Your task to perform on an android device: install app "Viber Messenger" Image 0: 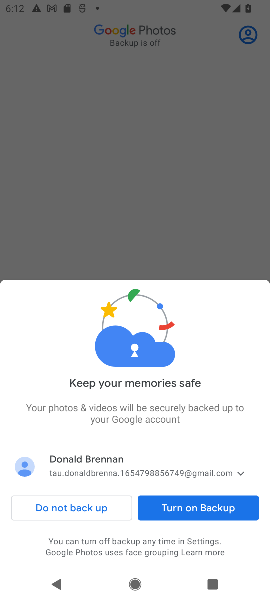
Step 0: press home button
Your task to perform on an android device: install app "Viber Messenger" Image 1: 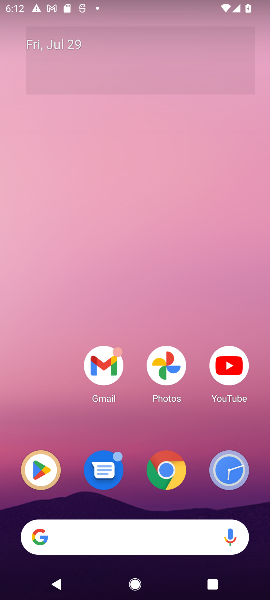
Step 1: drag from (191, 428) to (175, 50)
Your task to perform on an android device: install app "Viber Messenger" Image 2: 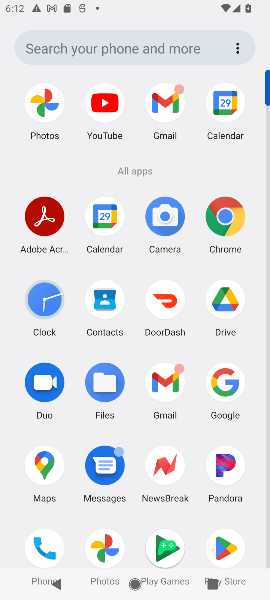
Step 2: click (214, 549)
Your task to perform on an android device: install app "Viber Messenger" Image 3: 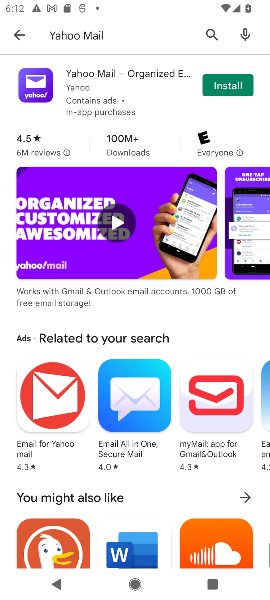
Step 3: click (158, 24)
Your task to perform on an android device: install app "Viber Messenger" Image 4: 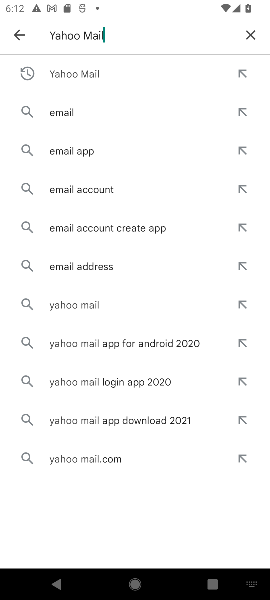
Step 4: click (243, 35)
Your task to perform on an android device: install app "Viber Messenger" Image 5: 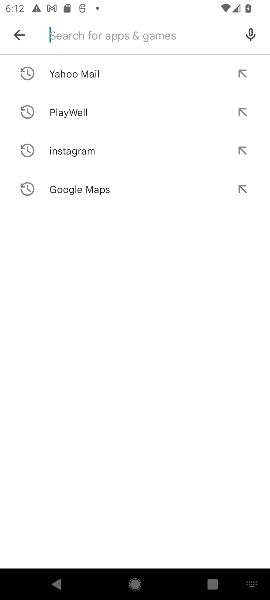
Step 5: type "Viber Messenger"
Your task to perform on an android device: install app "Viber Messenger" Image 6: 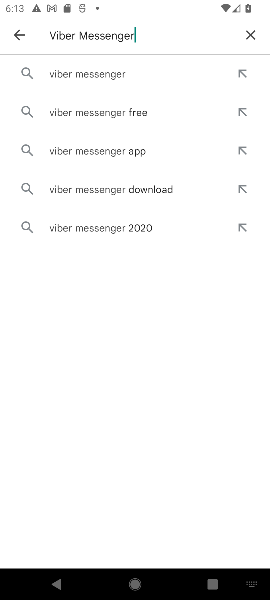
Step 6: press enter
Your task to perform on an android device: install app "Viber Messenger" Image 7: 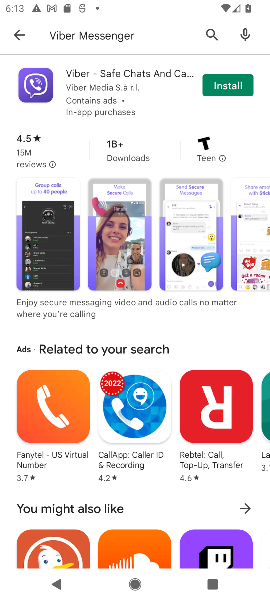
Step 7: click (238, 82)
Your task to perform on an android device: install app "Viber Messenger" Image 8: 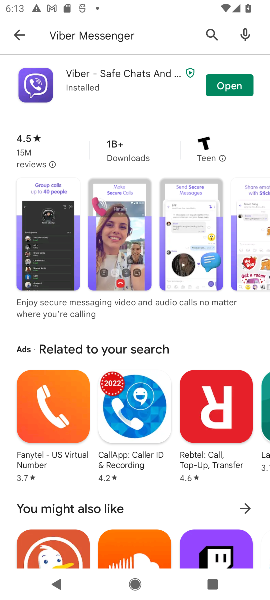
Step 8: task complete